Your task to perform on an android device: Turn on the flashlight Image 0: 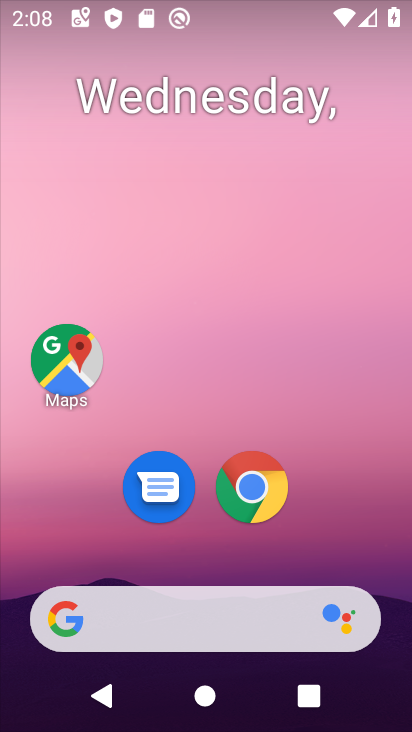
Step 0: drag from (370, 504) to (197, 134)
Your task to perform on an android device: Turn on the flashlight Image 1: 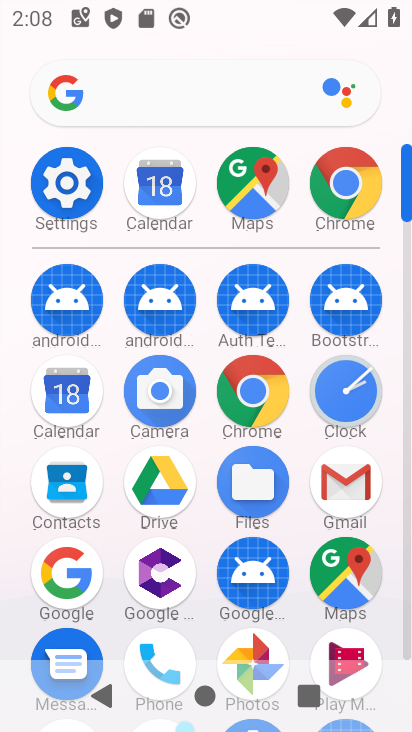
Step 1: click (56, 175)
Your task to perform on an android device: Turn on the flashlight Image 2: 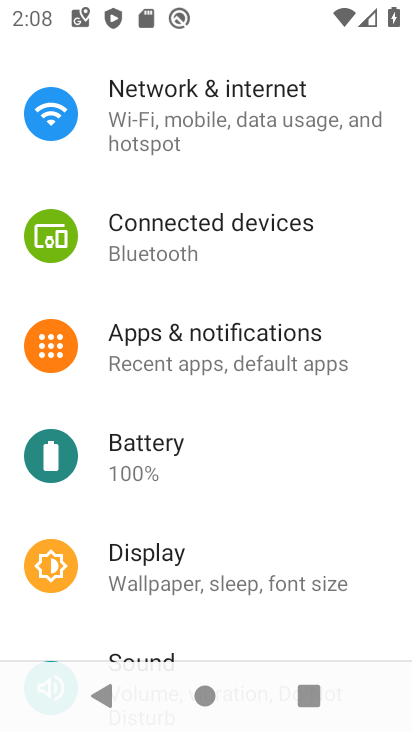
Step 2: task complete